Your task to perform on an android device: Open Google Maps and go to "Timeline" Image 0: 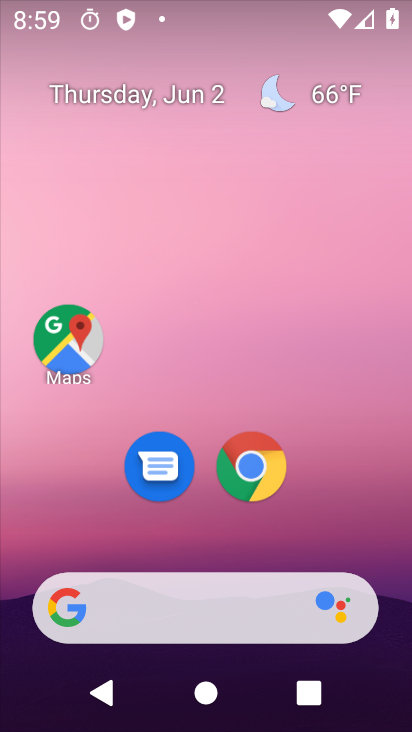
Step 0: press home button
Your task to perform on an android device: Open Google Maps and go to "Timeline" Image 1: 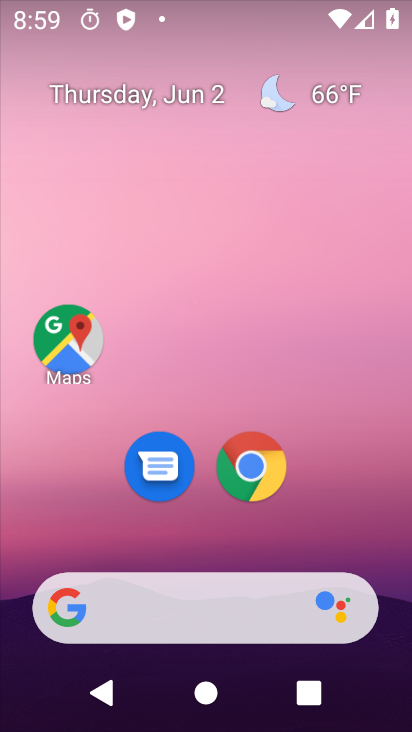
Step 1: drag from (66, 523) to (248, 151)
Your task to perform on an android device: Open Google Maps and go to "Timeline" Image 2: 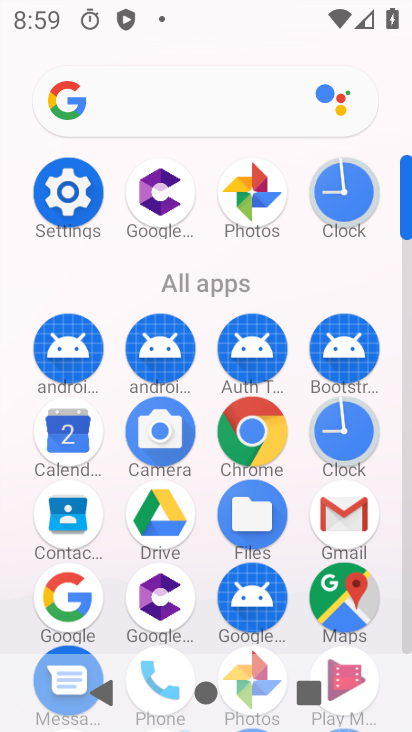
Step 2: click (357, 586)
Your task to perform on an android device: Open Google Maps and go to "Timeline" Image 3: 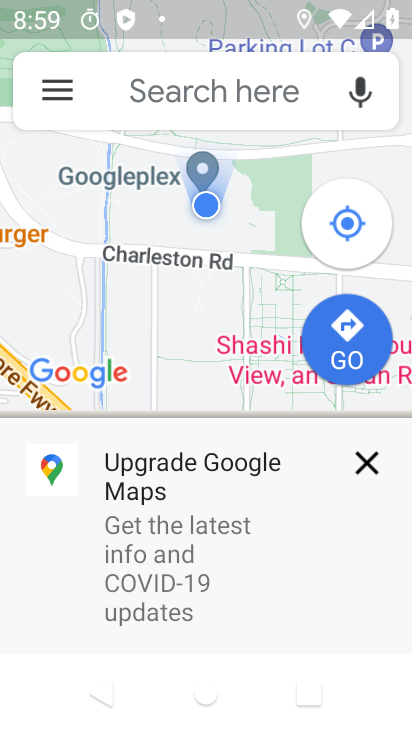
Step 3: click (365, 468)
Your task to perform on an android device: Open Google Maps and go to "Timeline" Image 4: 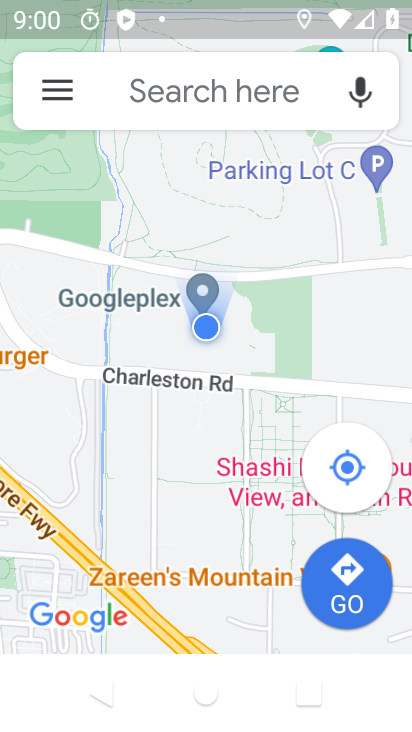
Step 4: click (39, 92)
Your task to perform on an android device: Open Google Maps and go to "Timeline" Image 5: 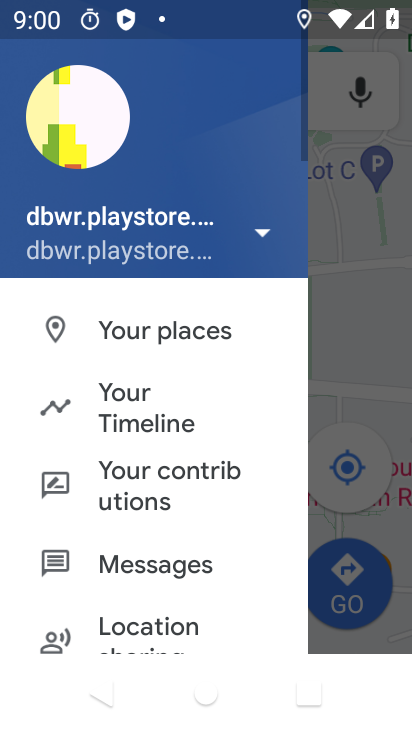
Step 5: click (166, 399)
Your task to perform on an android device: Open Google Maps and go to "Timeline" Image 6: 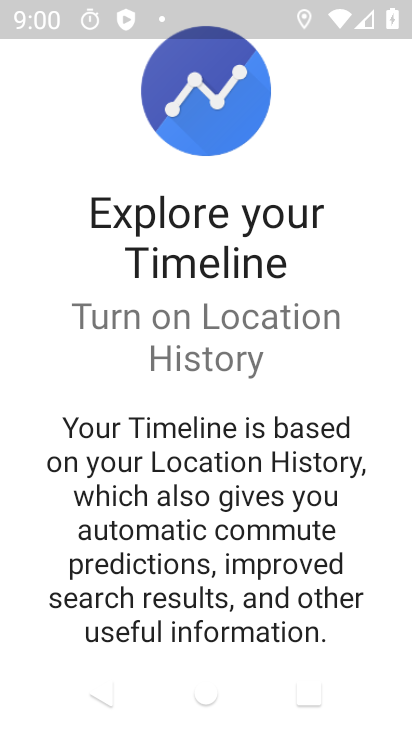
Step 6: drag from (26, 592) to (270, 221)
Your task to perform on an android device: Open Google Maps and go to "Timeline" Image 7: 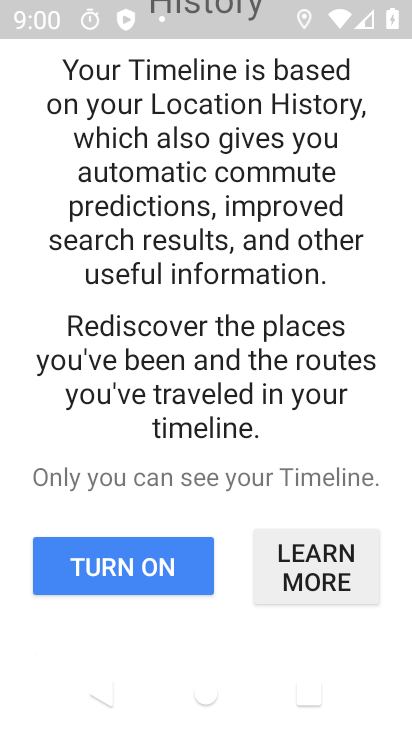
Step 7: click (144, 580)
Your task to perform on an android device: Open Google Maps and go to "Timeline" Image 8: 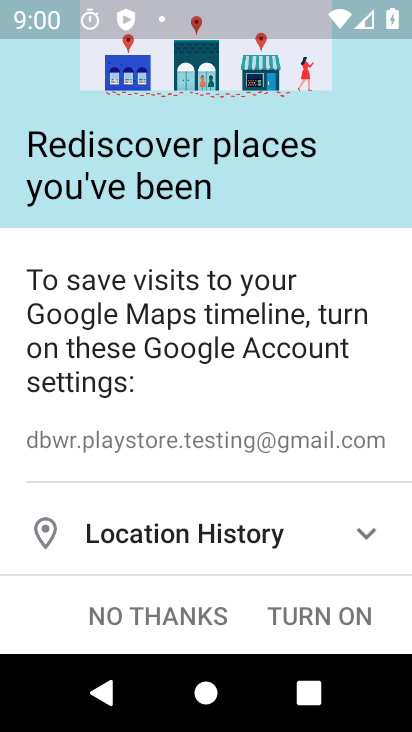
Step 8: click (128, 616)
Your task to perform on an android device: Open Google Maps and go to "Timeline" Image 9: 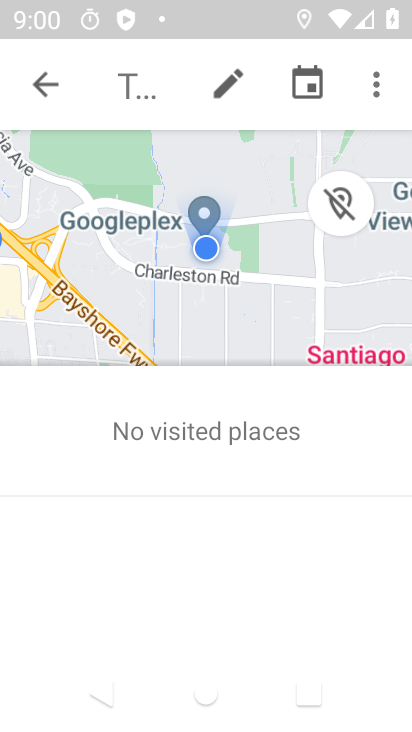
Step 9: task complete